Your task to perform on an android device: When is my next appointment? Image 0: 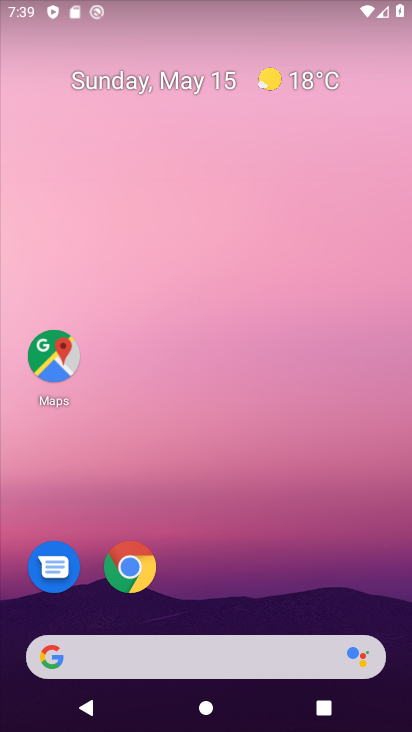
Step 0: drag from (152, 697) to (37, 59)
Your task to perform on an android device: When is my next appointment? Image 1: 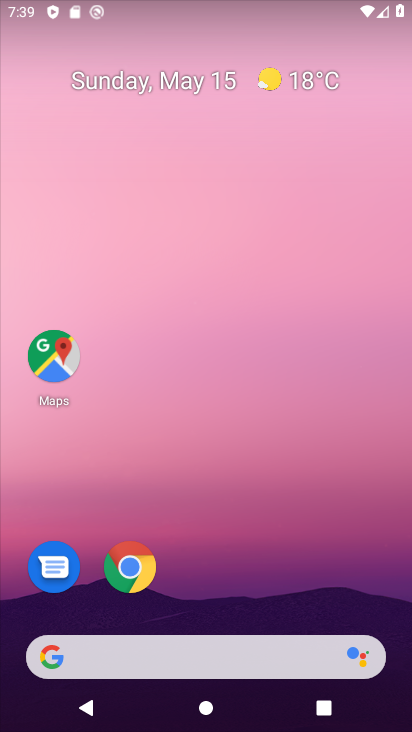
Step 1: drag from (147, 705) to (102, 725)
Your task to perform on an android device: When is my next appointment? Image 2: 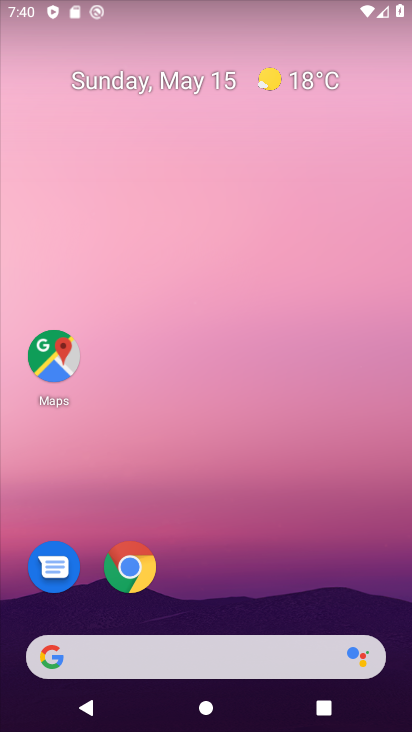
Step 2: drag from (161, 701) to (189, 88)
Your task to perform on an android device: When is my next appointment? Image 3: 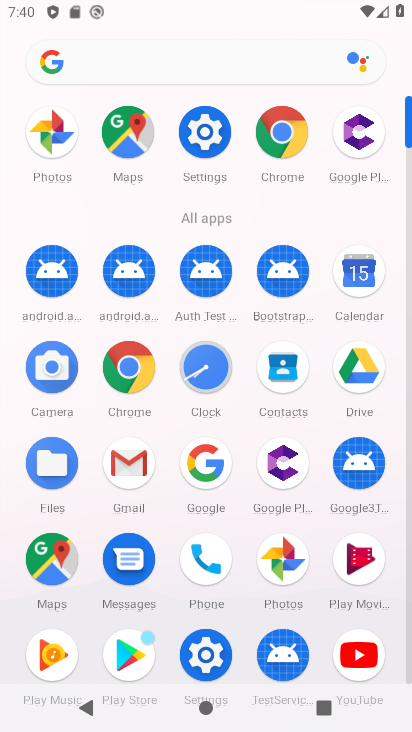
Step 3: click (364, 282)
Your task to perform on an android device: When is my next appointment? Image 4: 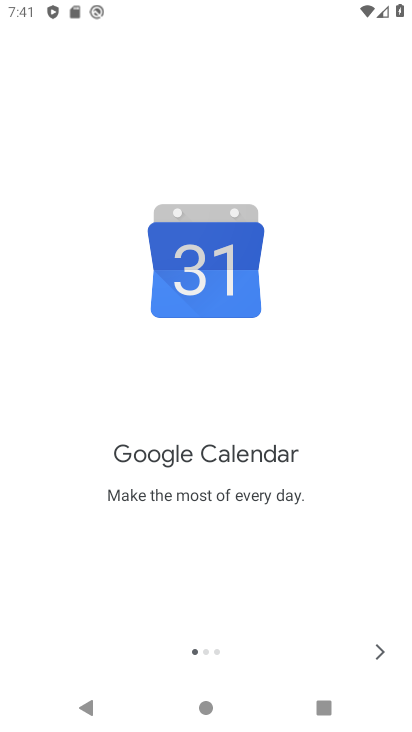
Step 4: click (373, 648)
Your task to perform on an android device: When is my next appointment? Image 5: 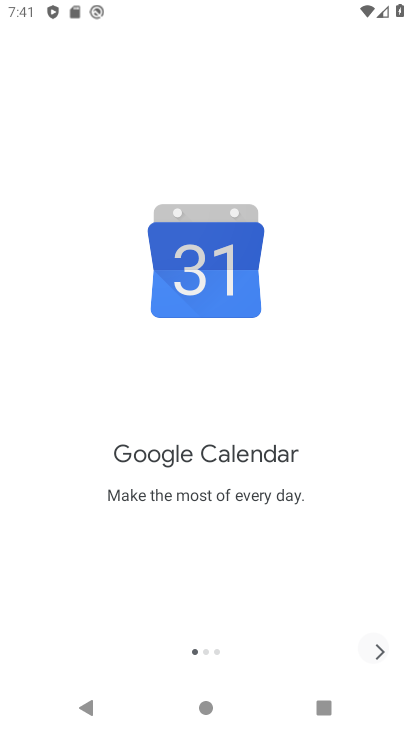
Step 5: click (383, 649)
Your task to perform on an android device: When is my next appointment? Image 6: 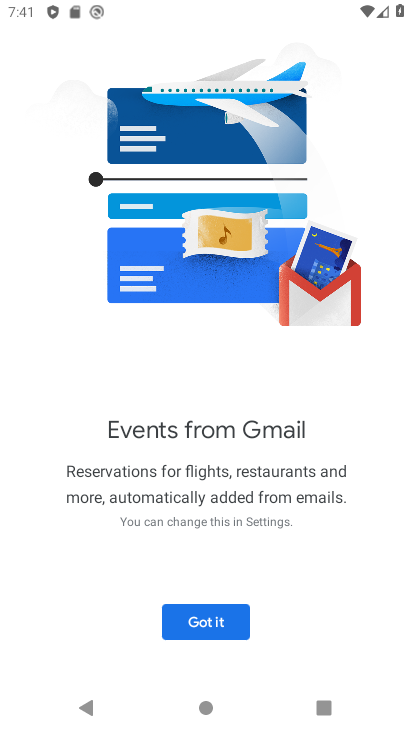
Step 6: click (236, 635)
Your task to perform on an android device: When is my next appointment? Image 7: 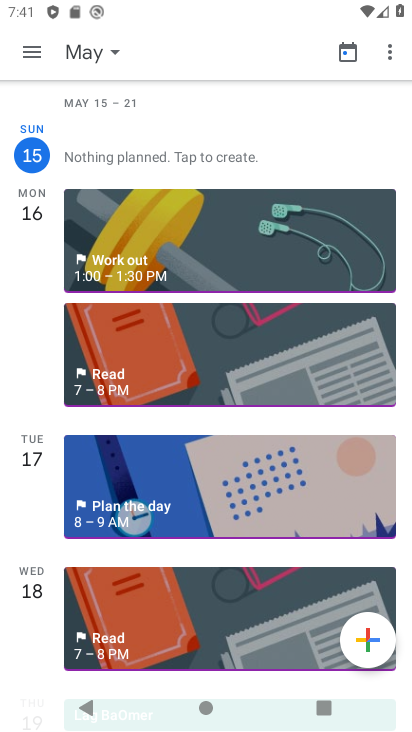
Step 7: task complete